Your task to perform on an android device: move a message to another label in the gmail app Image 0: 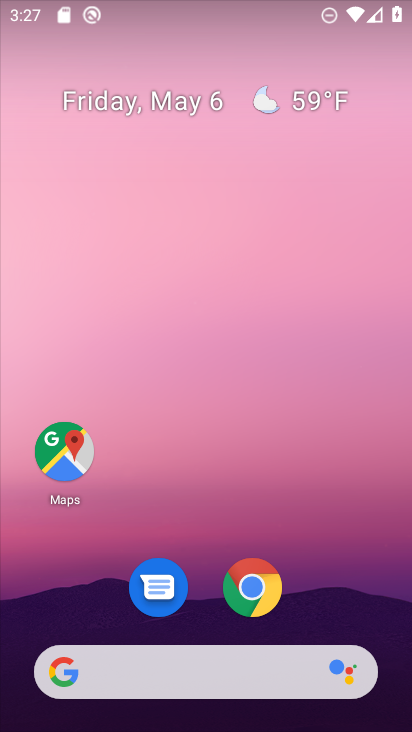
Step 0: drag from (354, 585) to (382, 72)
Your task to perform on an android device: move a message to another label in the gmail app Image 1: 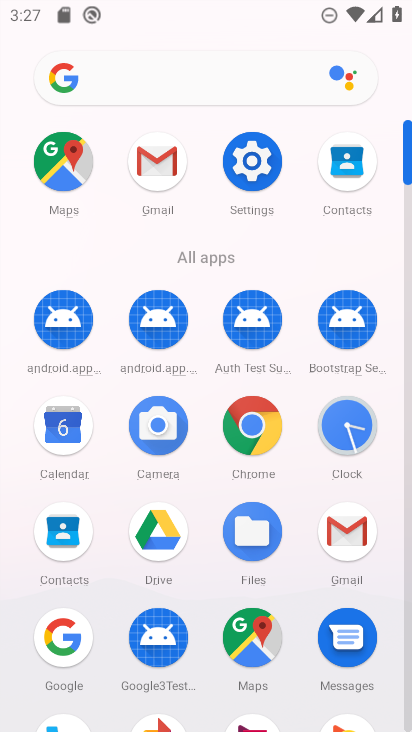
Step 1: click (155, 156)
Your task to perform on an android device: move a message to another label in the gmail app Image 2: 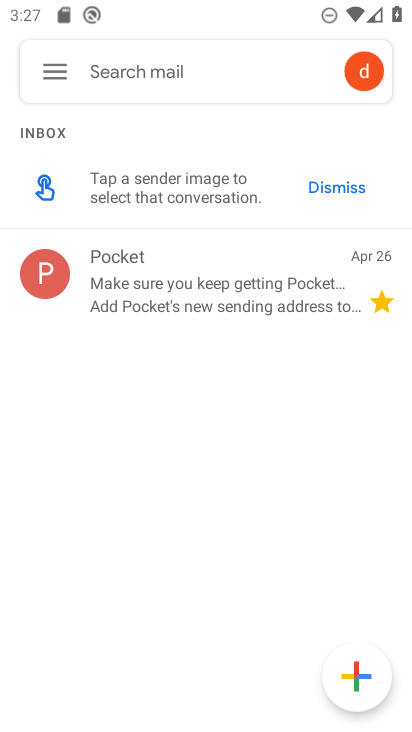
Step 2: click (200, 303)
Your task to perform on an android device: move a message to another label in the gmail app Image 3: 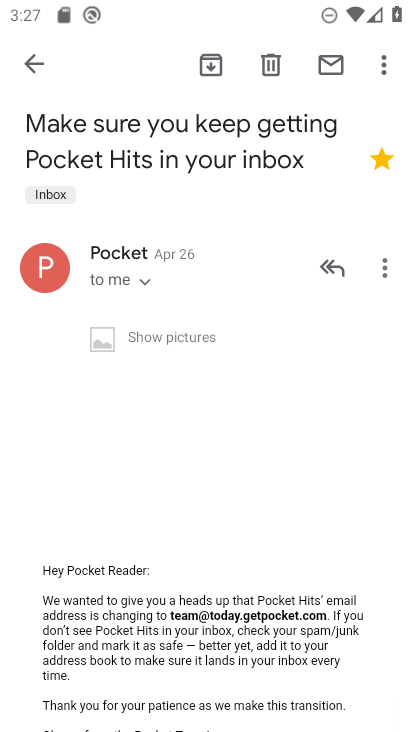
Step 3: click (392, 61)
Your task to perform on an android device: move a message to another label in the gmail app Image 4: 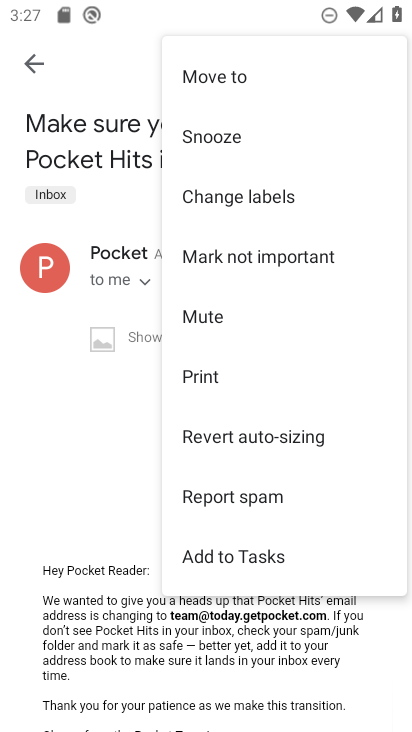
Step 4: click (239, 195)
Your task to perform on an android device: move a message to another label in the gmail app Image 5: 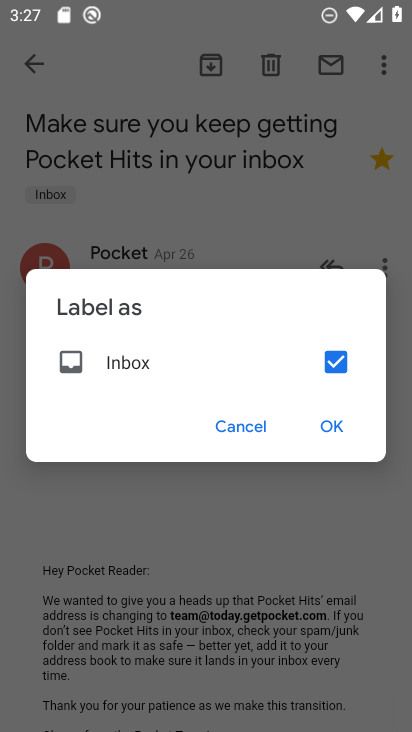
Step 5: click (326, 354)
Your task to perform on an android device: move a message to another label in the gmail app Image 6: 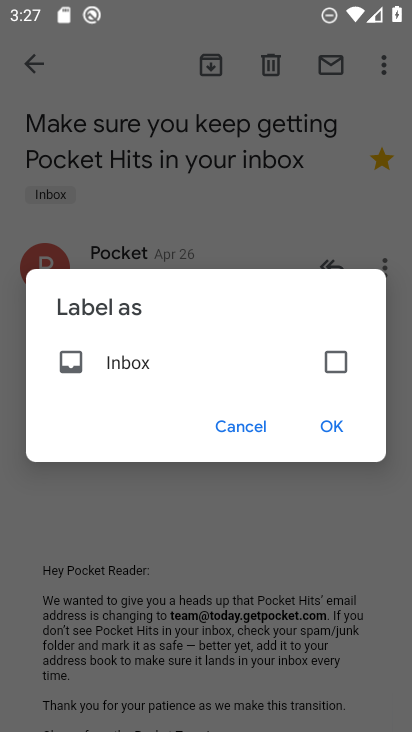
Step 6: click (333, 360)
Your task to perform on an android device: move a message to another label in the gmail app Image 7: 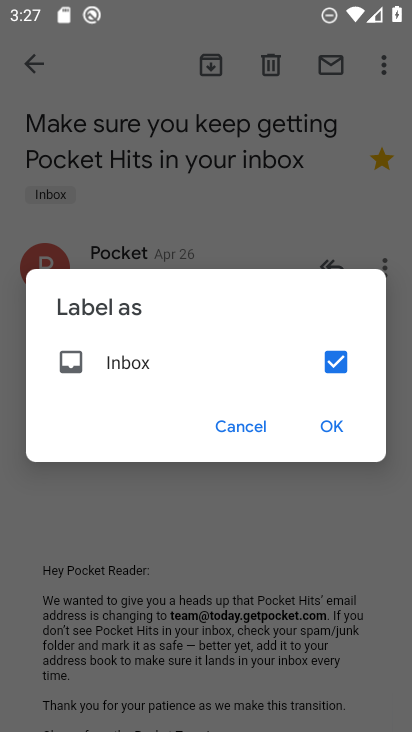
Step 7: click (319, 354)
Your task to perform on an android device: move a message to another label in the gmail app Image 8: 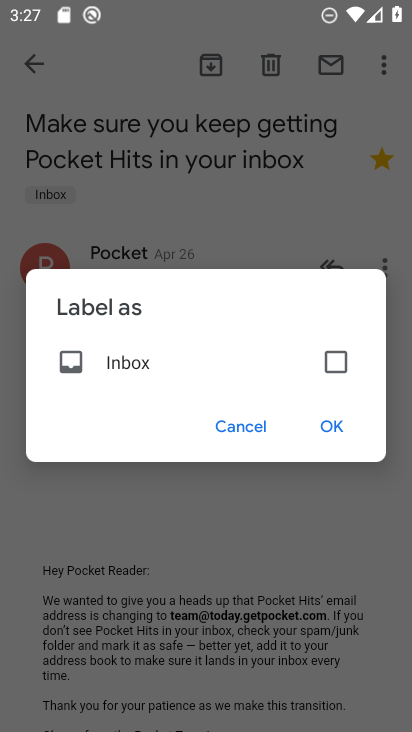
Step 8: click (344, 379)
Your task to perform on an android device: move a message to another label in the gmail app Image 9: 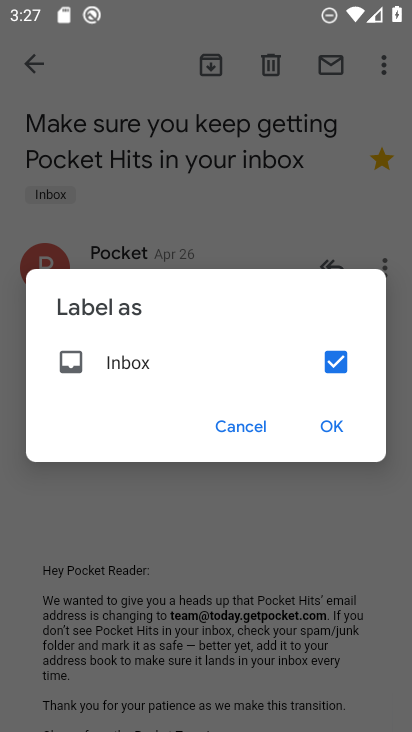
Step 9: click (341, 371)
Your task to perform on an android device: move a message to another label in the gmail app Image 10: 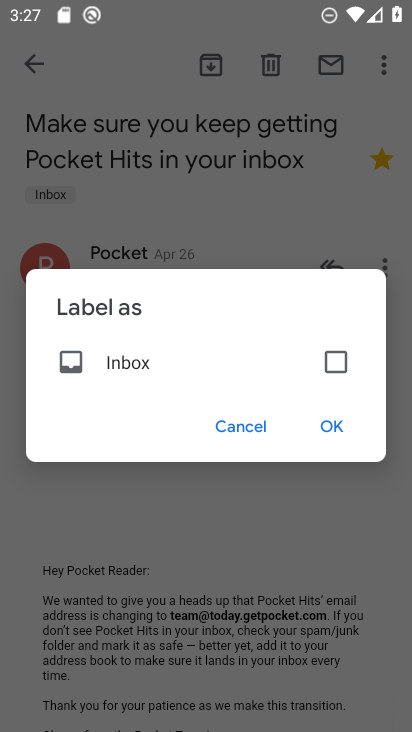
Step 10: click (328, 427)
Your task to perform on an android device: move a message to another label in the gmail app Image 11: 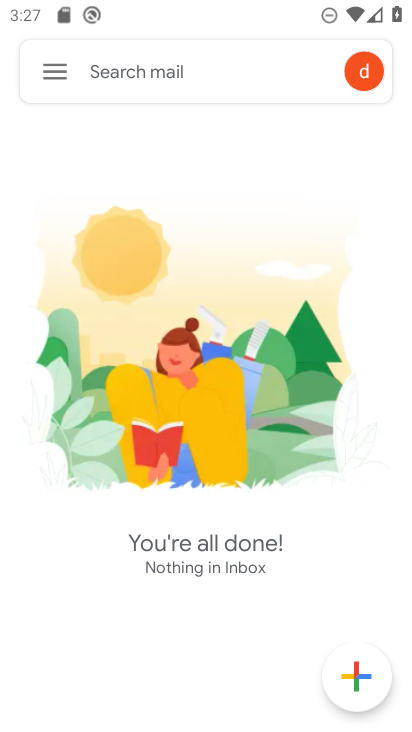
Step 11: task complete